Your task to perform on an android device: stop showing notifications on the lock screen Image 0: 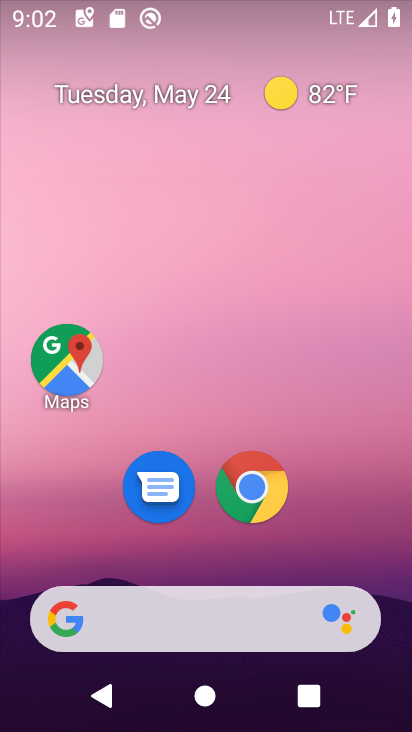
Step 0: drag from (357, 525) to (365, 126)
Your task to perform on an android device: stop showing notifications on the lock screen Image 1: 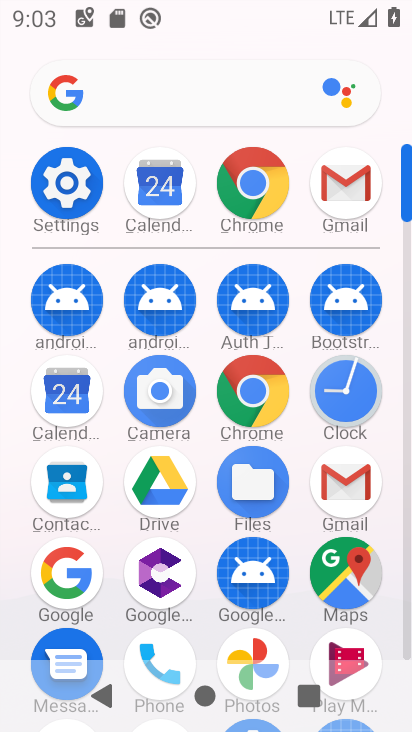
Step 1: click (69, 161)
Your task to perform on an android device: stop showing notifications on the lock screen Image 2: 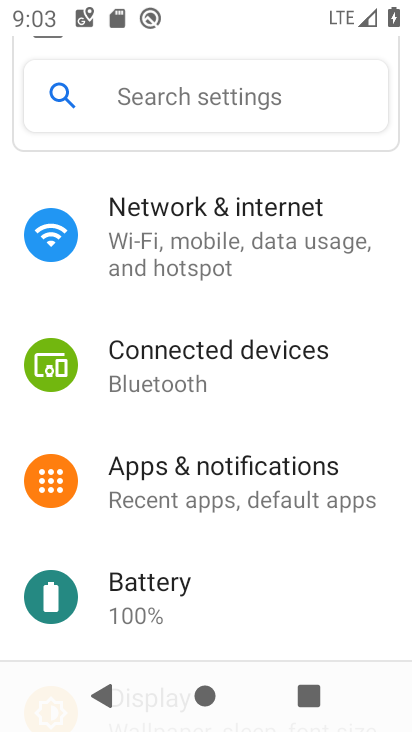
Step 2: click (251, 276)
Your task to perform on an android device: stop showing notifications on the lock screen Image 3: 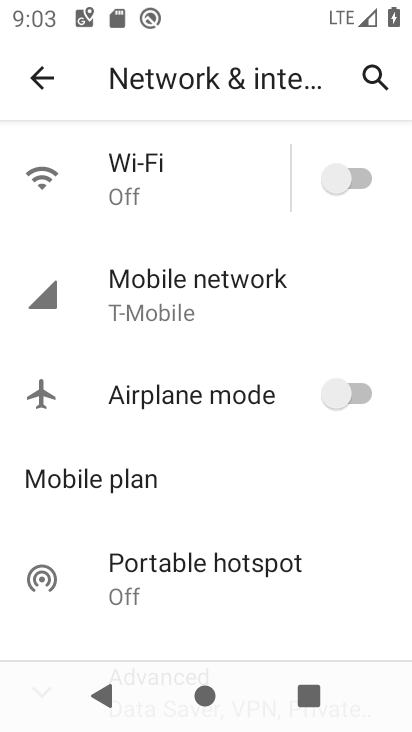
Step 3: press home button
Your task to perform on an android device: stop showing notifications on the lock screen Image 4: 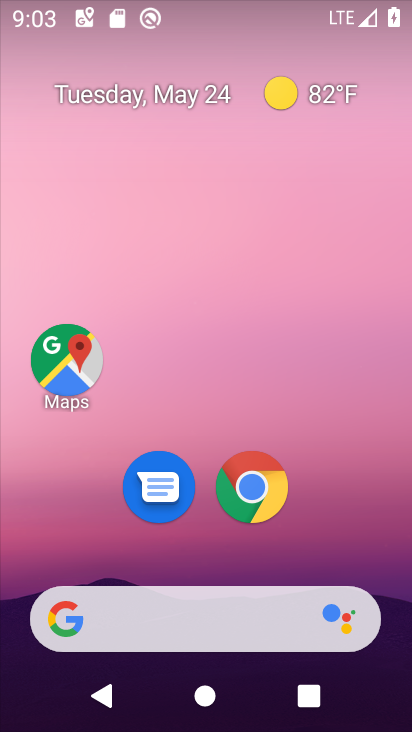
Step 4: drag from (358, 505) to (355, 138)
Your task to perform on an android device: stop showing notifications on the lock screen Image 5: 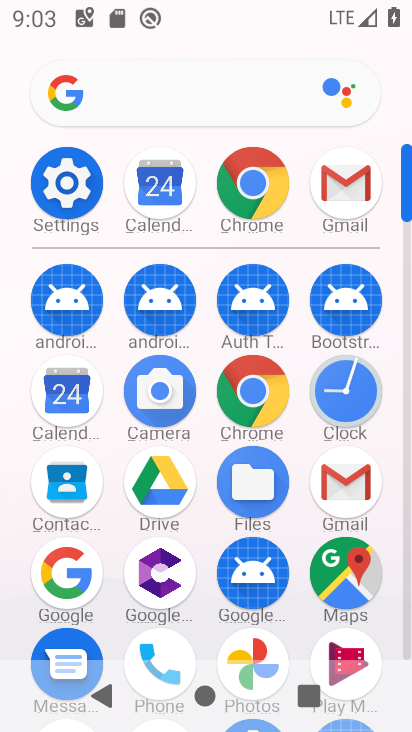
Step 5: drag from (194, 619) to (225, 304)
Your task to perform on an android device: stop showing notifications on the lock screen Image 6: 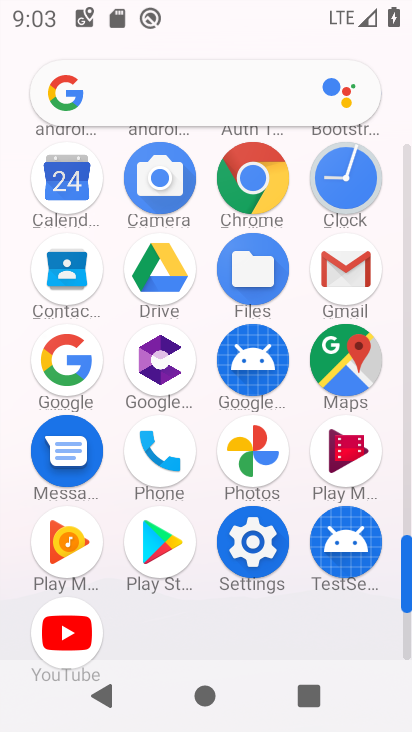
Step 6: click (262, 565)
Your task to perform on an android device: stop showing notifications on the lock screen Image 7: 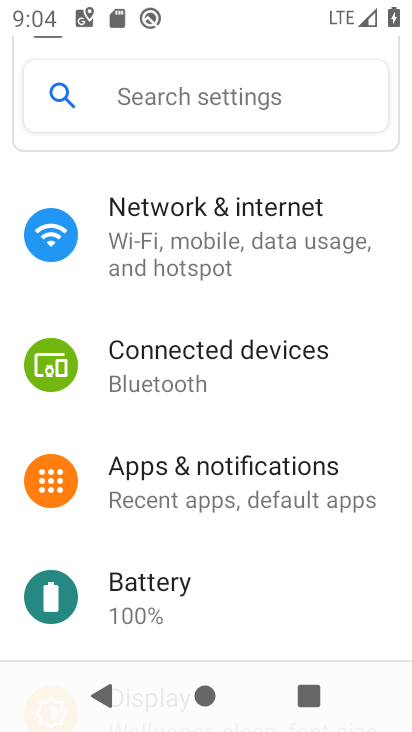
Step 7: click (219, 487)
Your task to perform on an android device: stop showing notifications on the lock screen Image 8: 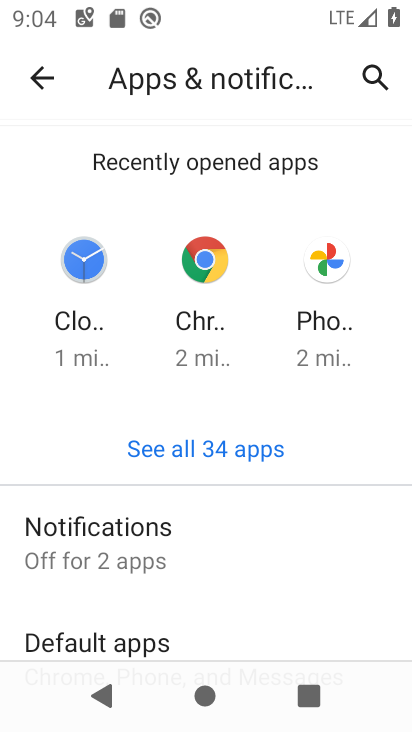
Step 8: click (117, 539)
Your task to perform on an android device: stop showing notifications on the lock screen Image 9: 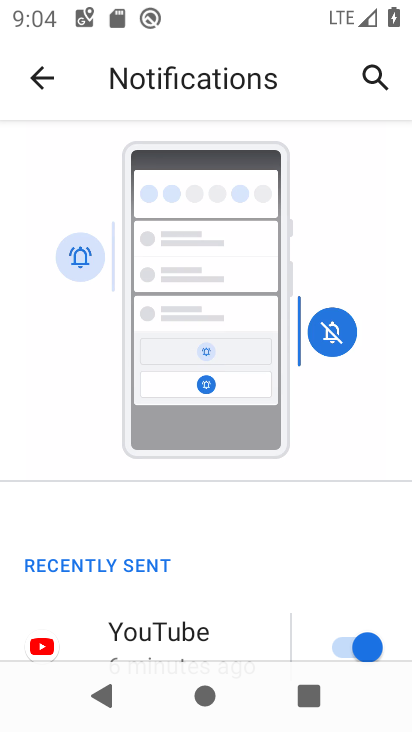
Step 9: drag from (254, 567) to (383, 254)
Your task to perform on an android device: stop showing notifications on the lock screen Image 10: 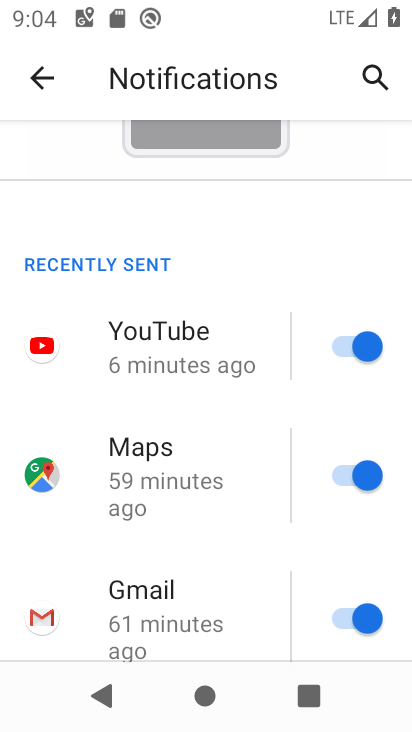
Step 10: drag from (263, 560) to (285, 263)
Your task to perform on an android device: stop showing notifications on the lock screen Image 11: 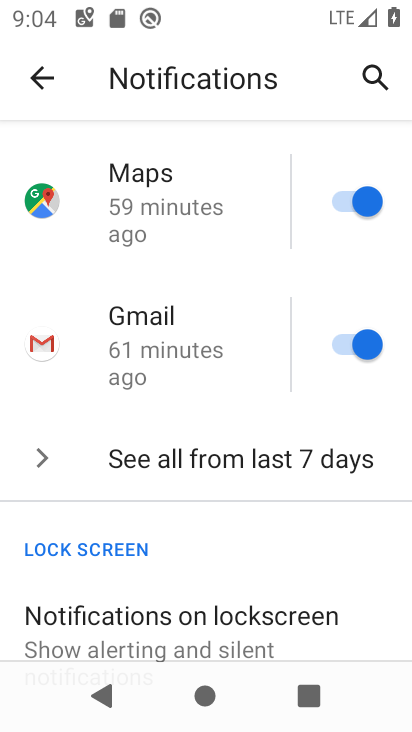
Step 11: drag from (223, 553) to (268, 211)
Your task to perform on an android device: stop showing notifications on the lock screen Image 12: 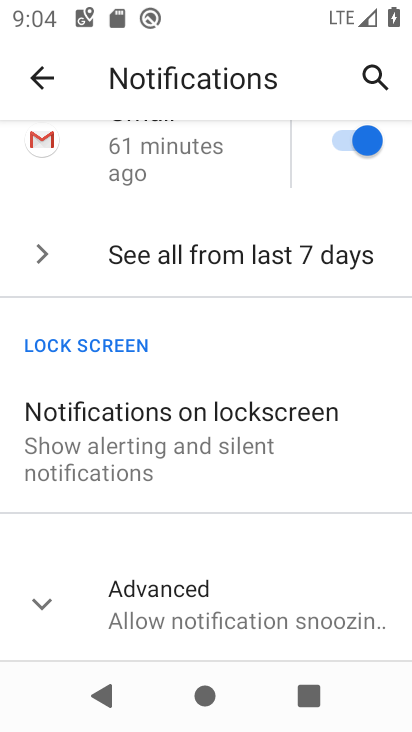
Step 12: click (214, 451)
Your task to perform on an android device: stop showing notifications on the lock screen Image 13: 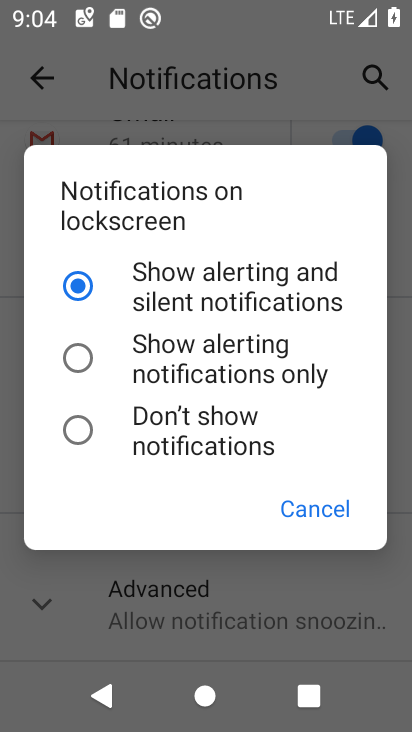
Step 13: click (76, 424)
Your task to perform on an android device: stop showing notifications on the lock screen Image 14: 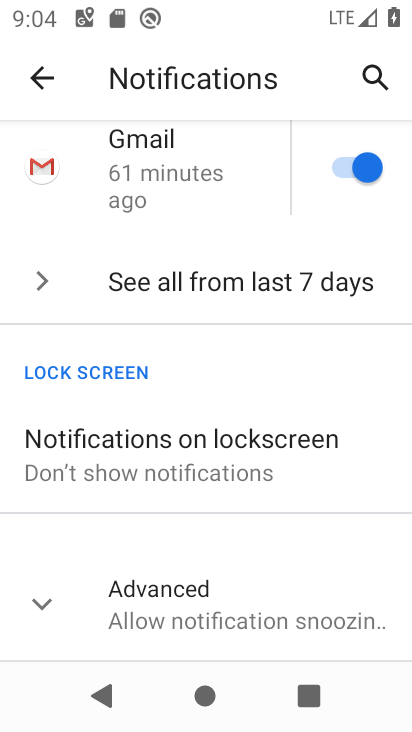
Step 14: task complete